Your task to perform on an android device: Go to Amazon Image 0: 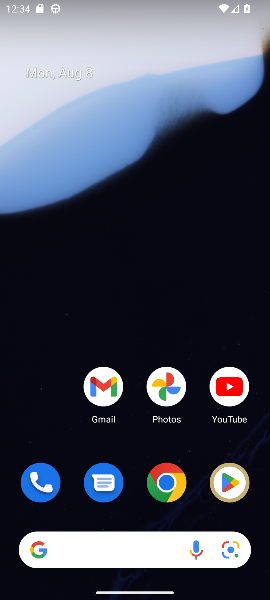
Step 0: drag from (150, 546) to (176, 9)
Your task to perform on an android device: Go to Amazon Image 1: 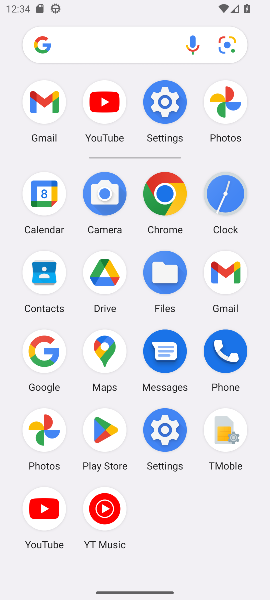
Step 1: click (164, 197)
Your task to perform on an android device: Go to Amazon Image 2: 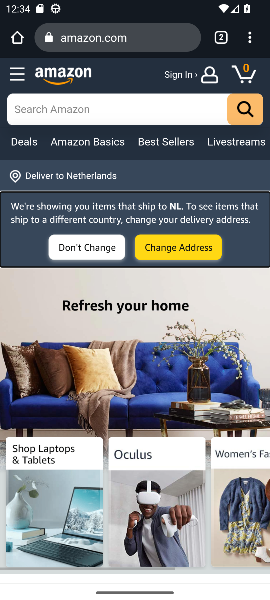
Step 2: task complete